Your task to perform on an android device: Open CNN.com Image 0: 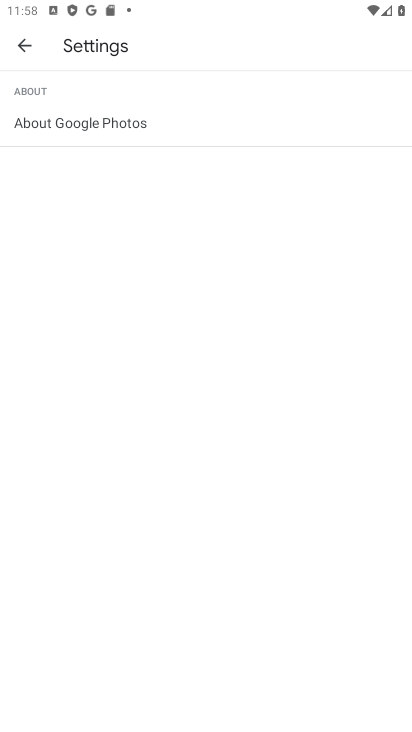
Step 0: press home button
Your task to perform on an android device: Open CNN.com Image 1: 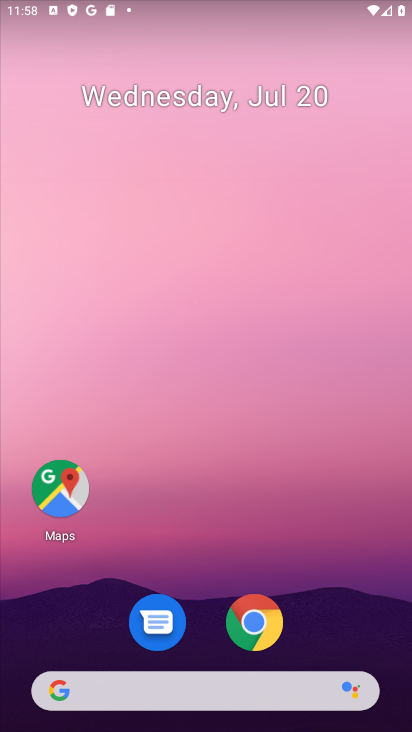
Step 1: drag from (300, 590) to (314, 260)
Your task to perform on an android device: Open CNN.com Image 2: 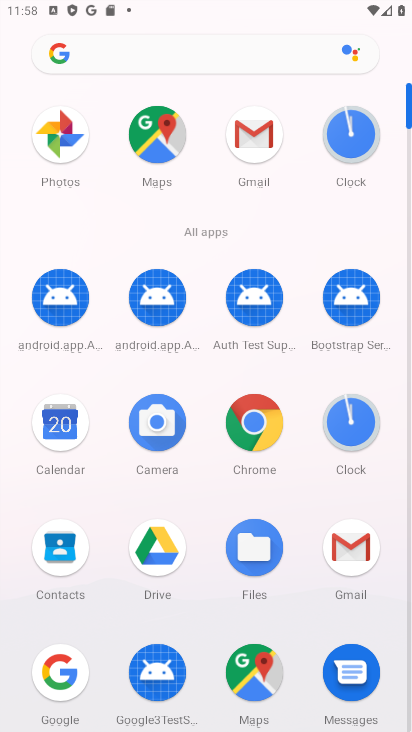
Step 2: click (241, 423)
Your task to perform on an android device: Open CNN.com Image 3: 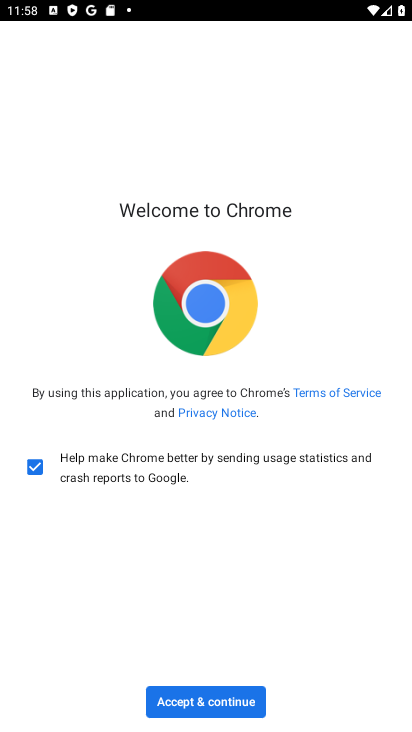
Step 3: click (199, 689)
Your task to perform on an android device: Open CNN.com Image 4: 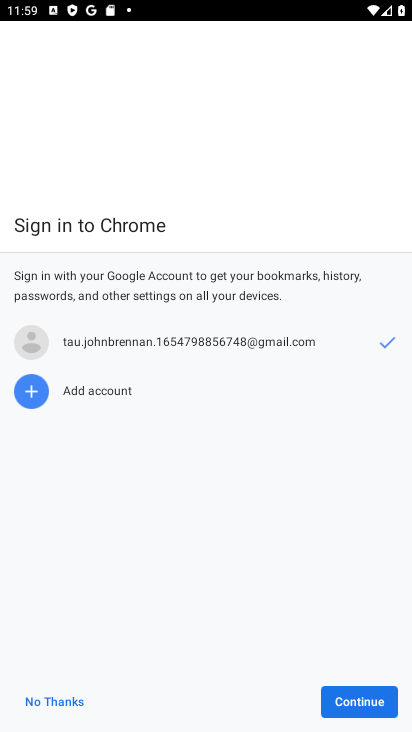
Step 4: click (350, 702)
Your task to perform on an android device: Open CNN.com Image 5: 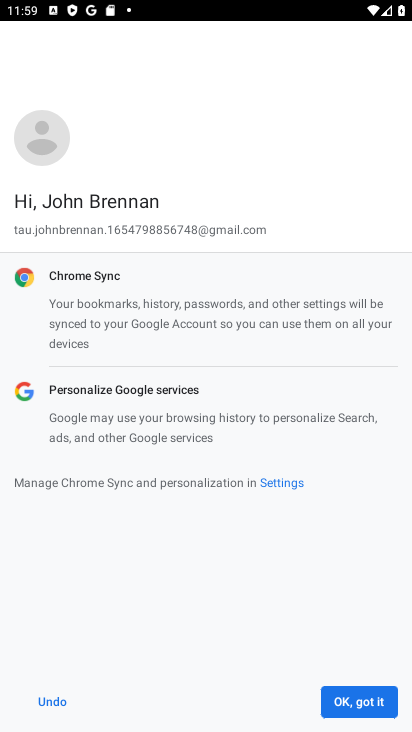
Step 5: click (350, 702)
Your task to perform on an android device: Open CNN.com Image 6: 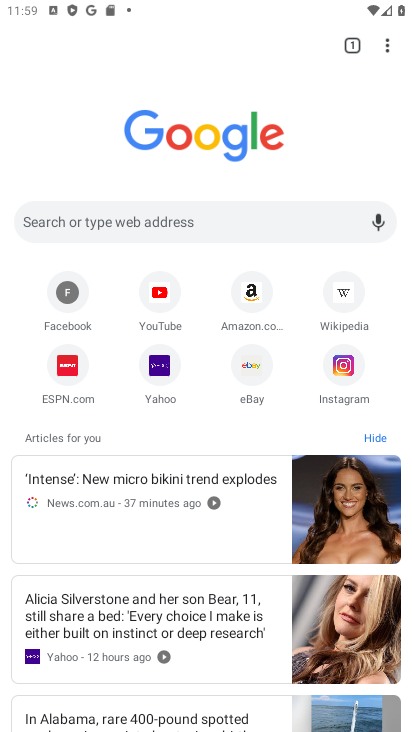
Step 6: click (127, 222)
Your task to perform on an android device: Open CNN.com Image 7: 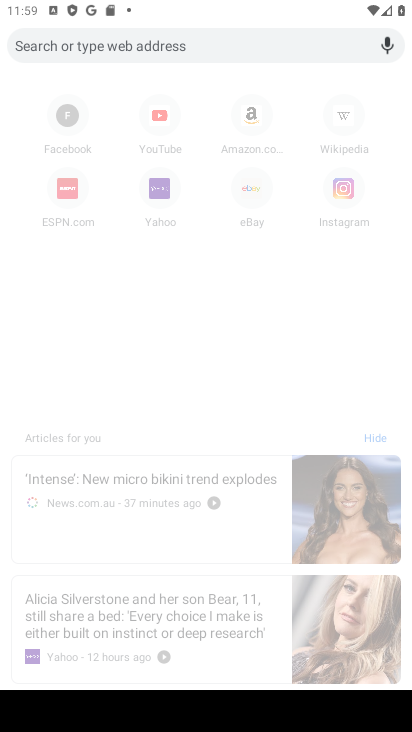
Step 7: drag from (364, 702) to (391, 546)
Your task to perform on an android device: Open CNN.com Image 8: 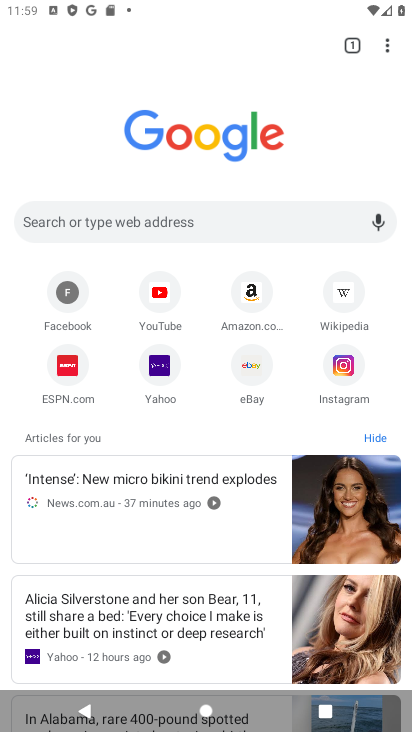
Step 8: click (173, 217)
Your task to perform on an android device: Open CNN.com Image 9: 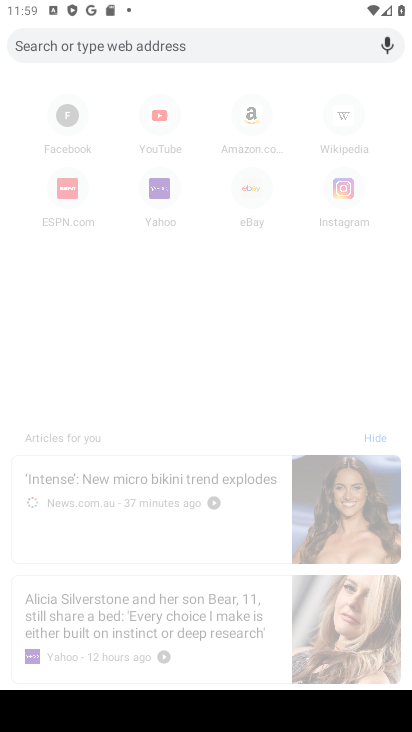
Step 9: drag from (383, 725) to (391, 682)
Your task to perform on an android device: Open CNN.com Image 10: 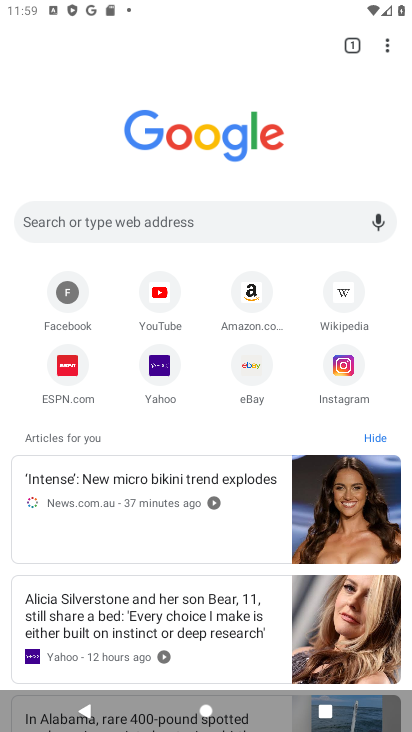
Step 10: click (386, 717)
Your task to perform on an android device: Open CNN.com Image 11: 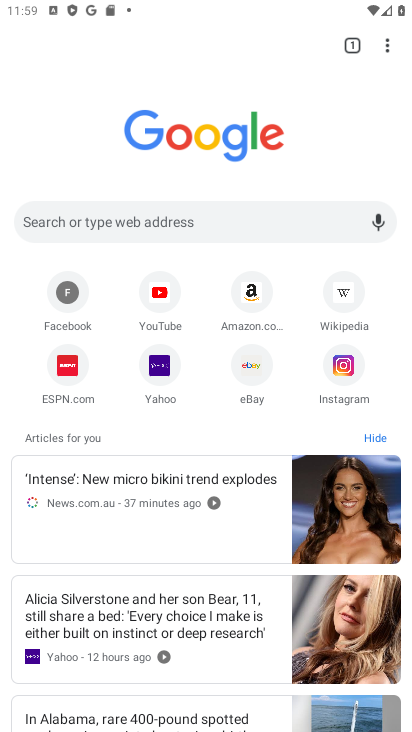
Step 11: click (117, 222)
Your task to perform on an android device: Open CNN.com Image 12: 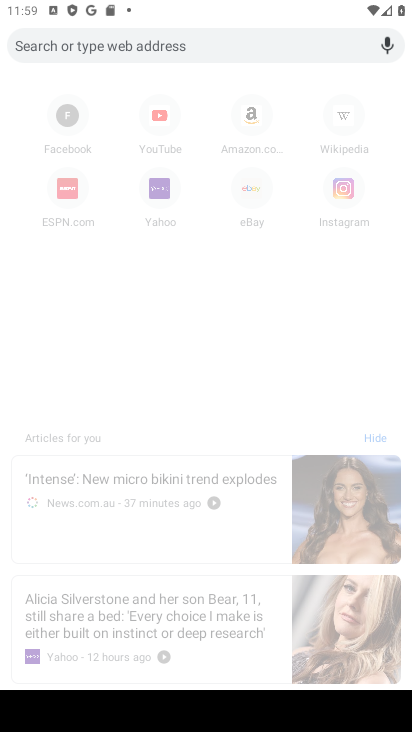
Step 12: click (365, 689)
Your task to perform on an android device: Open CNN.com Image 13: 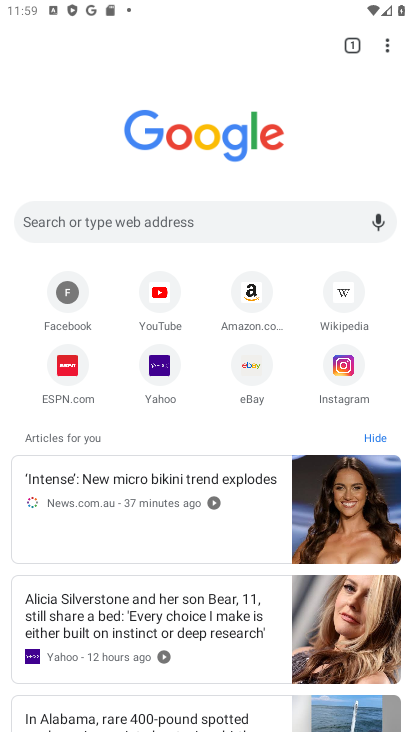
Step 13: click (341, 310)
Your task to perform on an android device: Open CNN.com Image 14: 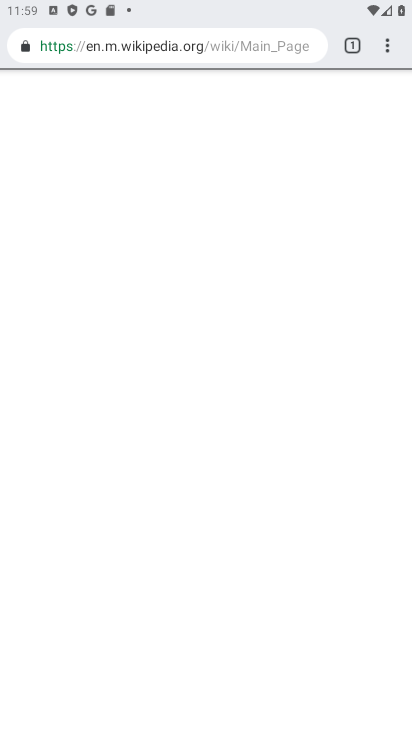
Step 14: click (135, 41)
Your task to perform on an android device: Open CNN.com Image 15: 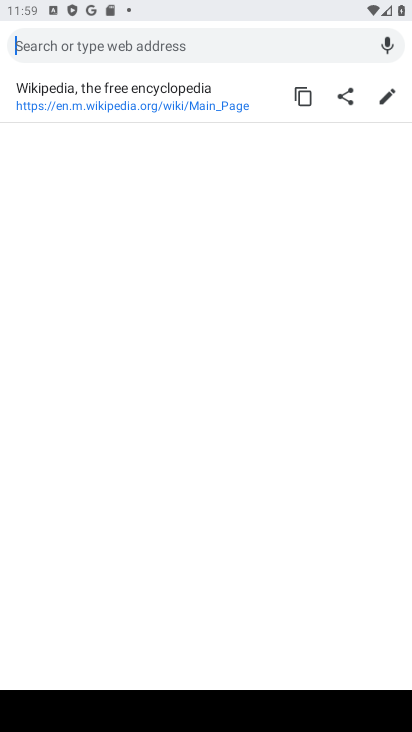
Step 15: drag from (388, 717) to (408, 587)
Your task to perform on an android device: Open CNN.com Image 16: 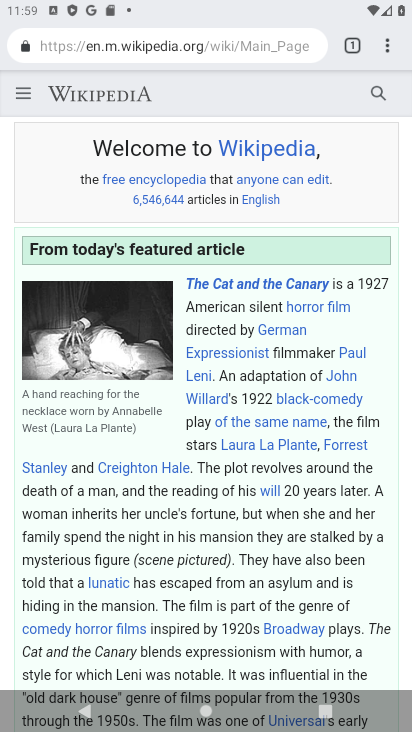
Step 16: click (389, 702)
Your task to perform on an android device: Open CNN.com Image 17: 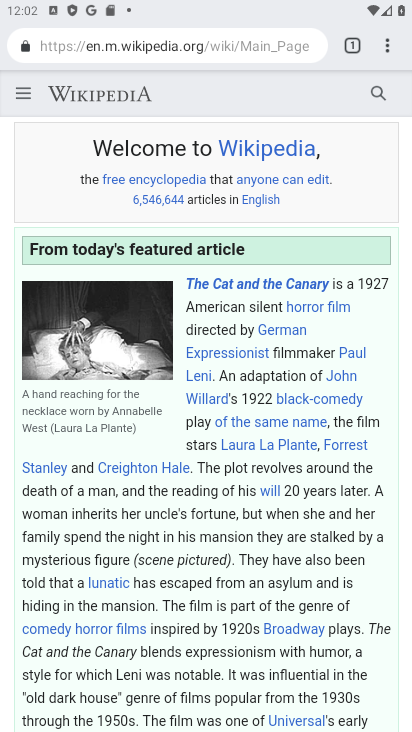
Step 17: task complete